Your task to perform on an android device: make emails show in primary in the gmail app Image 0: 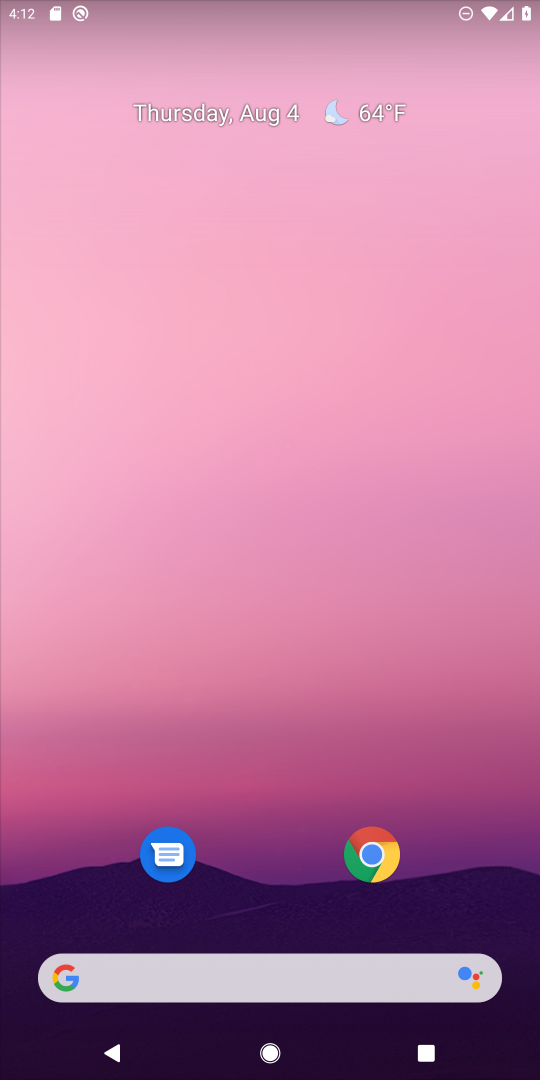
Step 0: drag from (180, 687) to (193, 338)
Your task to perform on an android device: make emails show in primary in the gmail app Image 1: 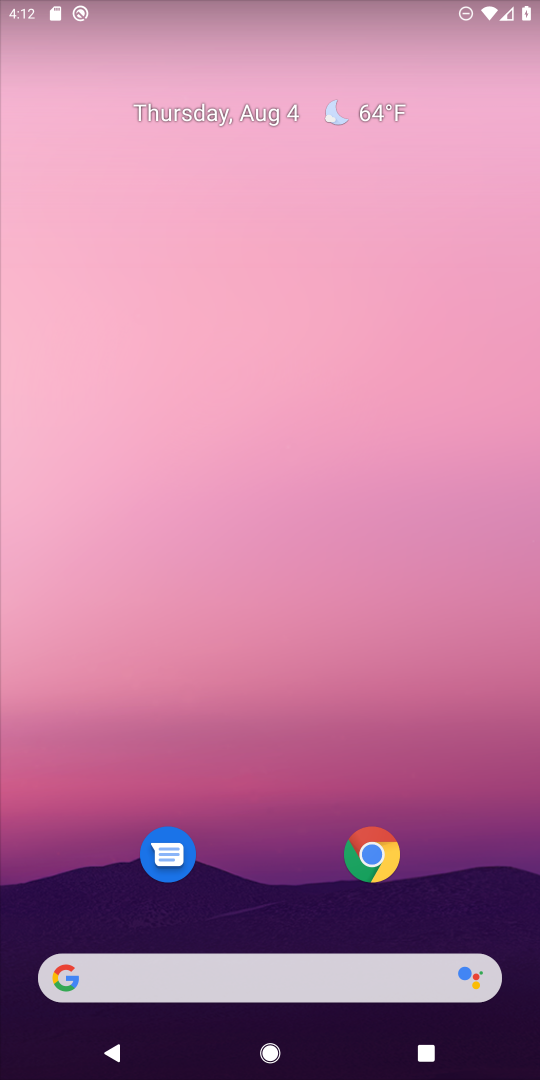
Step 1: drag from (323, 778) to (267, 0)
Your task to perform on an android device: make emails show in primary in the gmail app Image 2: 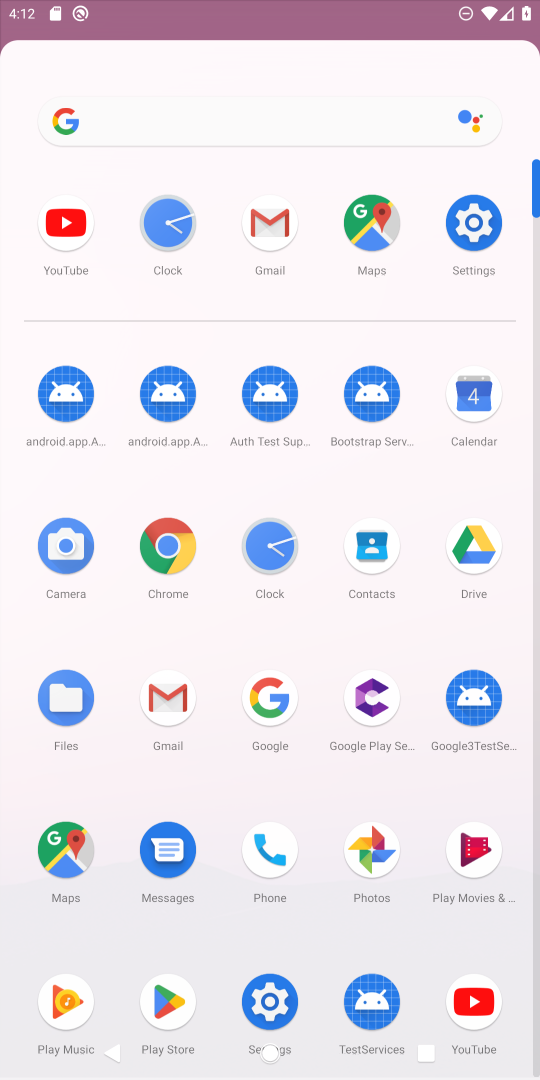
Step 2: click (257, 326)
Your task to perform on an android device: make emails show in primary in the gmail app Image 3: 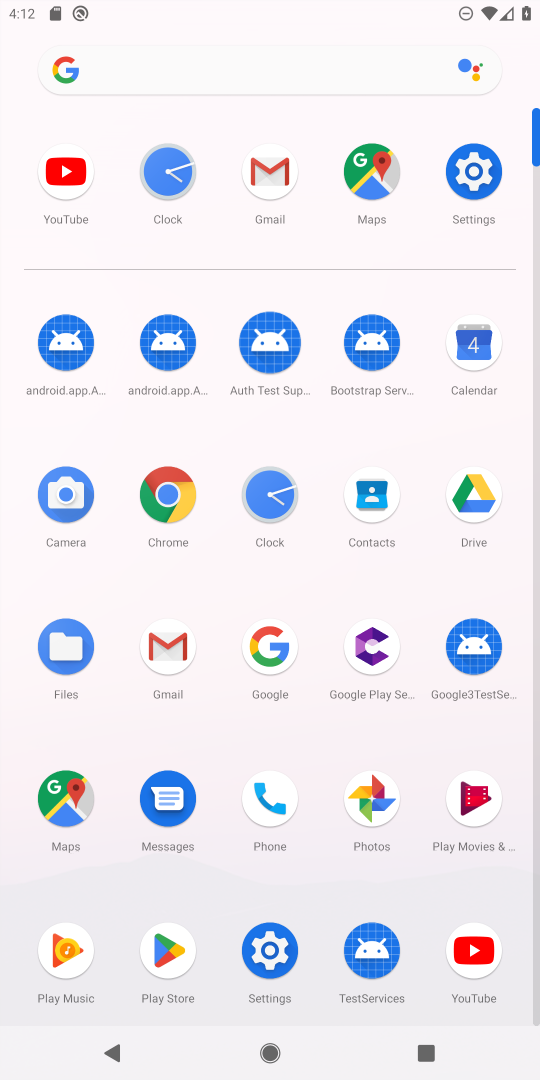
Step 3: click (280, 194)
Your task to perform on an android device: make emails show in primary in the gmail app Image 4: 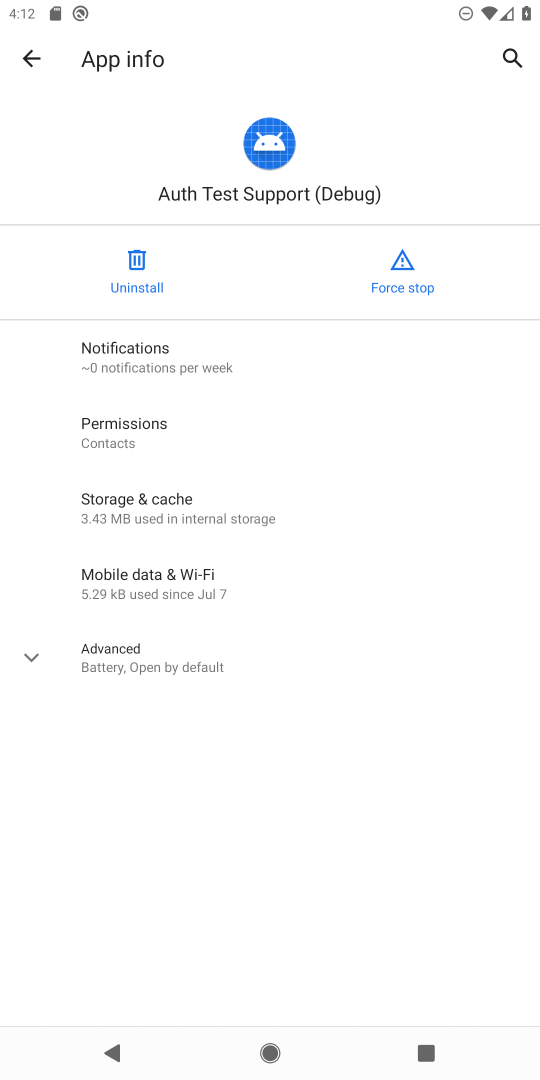
Step 4: click (24, 60)
Your task to perform on an android device: make emails show in primary in the gmail app Image 5: 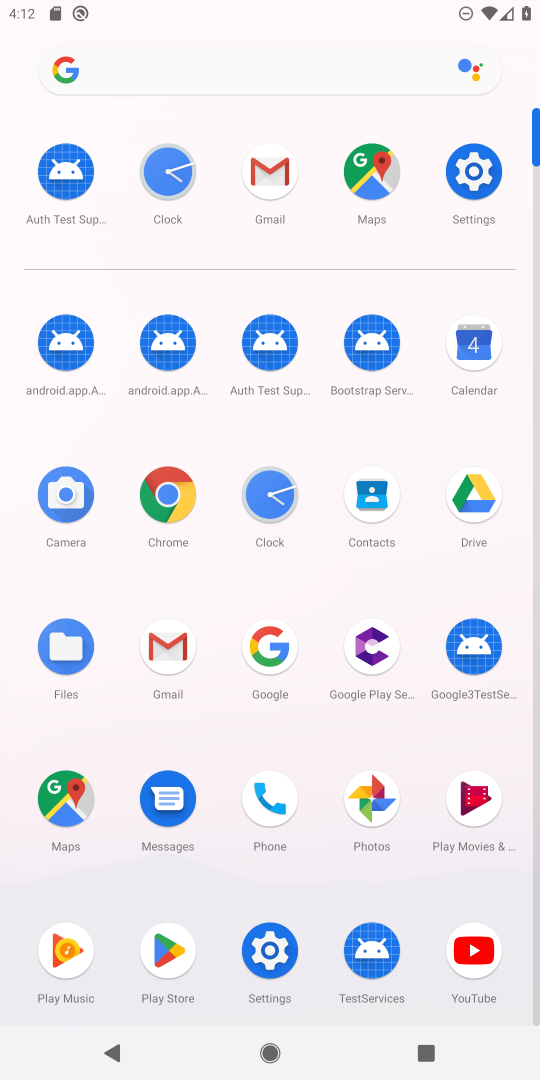
Step 5: click (277, 157)
Your task to perform on an android device: make emails show in primary in the gmail app Image 6: 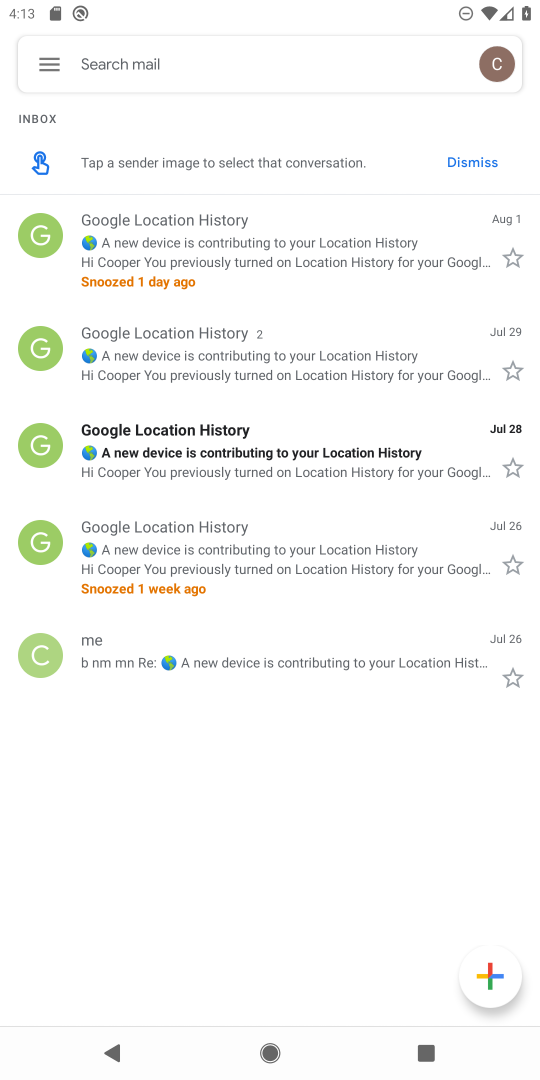
Step 6: task complete